Your task to perform on an android device: turn on airplane mode Image 0: 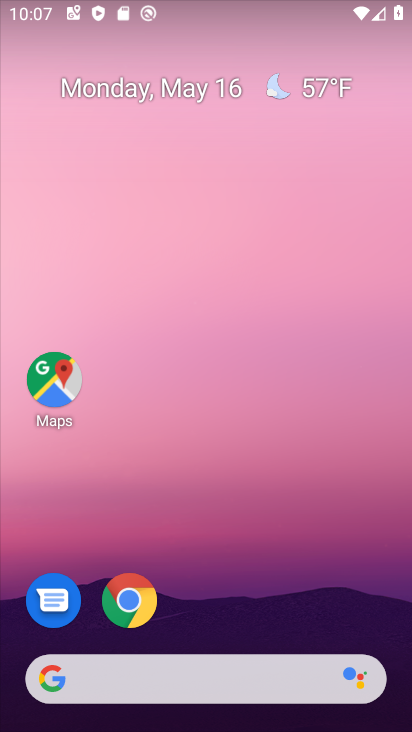
Step 0: drag from (349, 579) to (314, 152)
Your task to perform on an android device: turn on airplane mode Image 1: 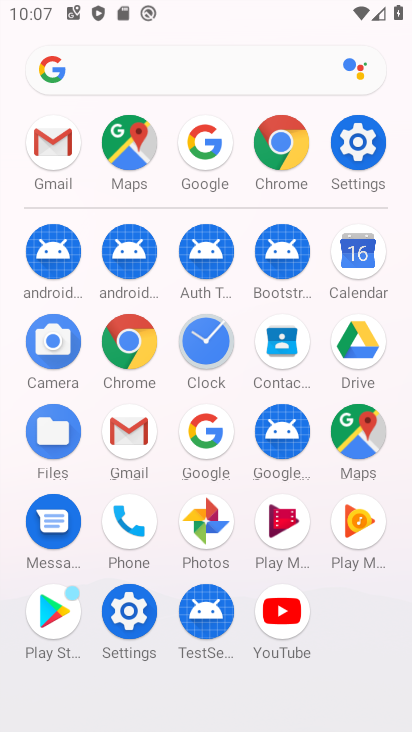
Step 1: click (352, 153)
Your task to perform on an android device: turn on airplane mode Image 2: 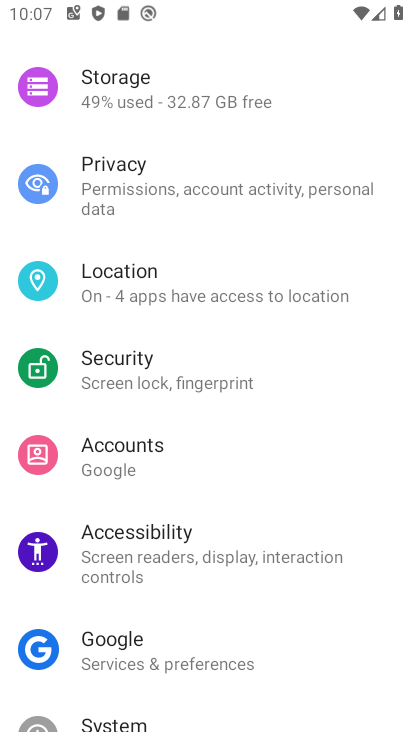
Step 2: drag from (202, 196) to (292, 456)
Your task to perform on an android device: turn on airplane mode Image 3: 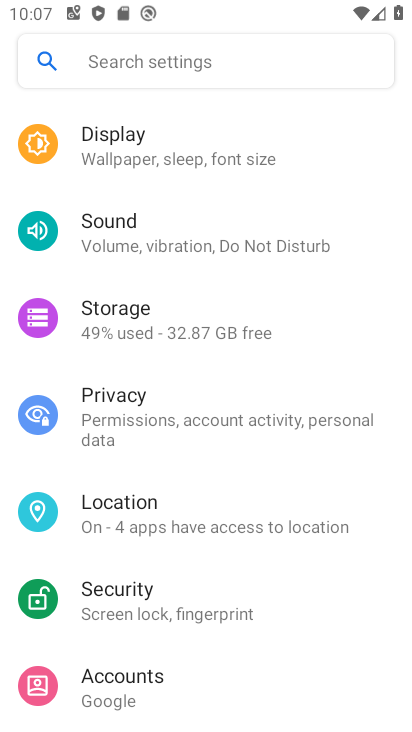
Step 3: drag from (244, 233) to (338, 537)
Your task to perform on an android device: turn on airplane mode Image 4: 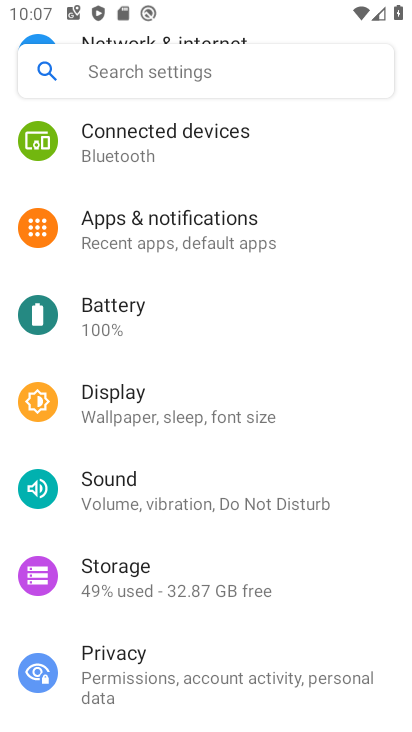
Step 4: drag from (217, 225) to (327, 525)
Your task to perform on an android device: turn on airplane mode Image 5: 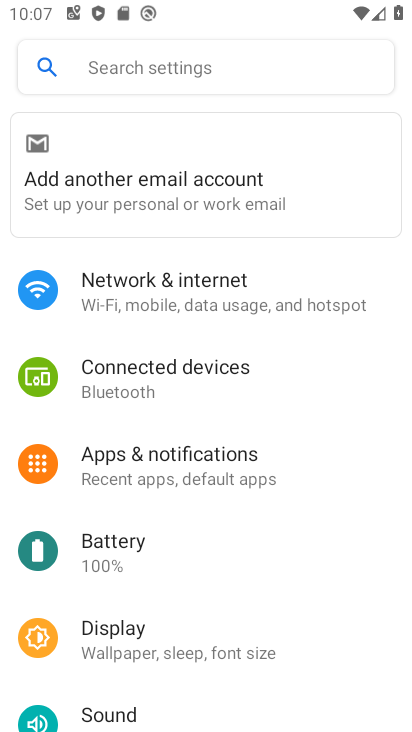
Step 5: click (277, 300)
Your task to perform on an android device: turn on airplane mode Image 6: 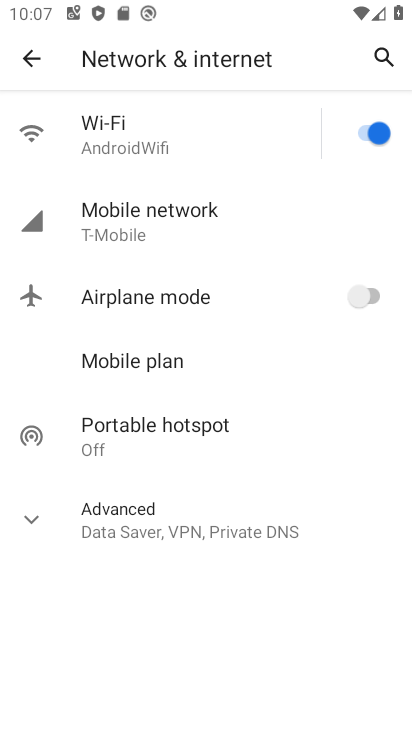
Step 6: click (380, 298)
Your task to perform on an android device: turn on airplane mode Image 7: 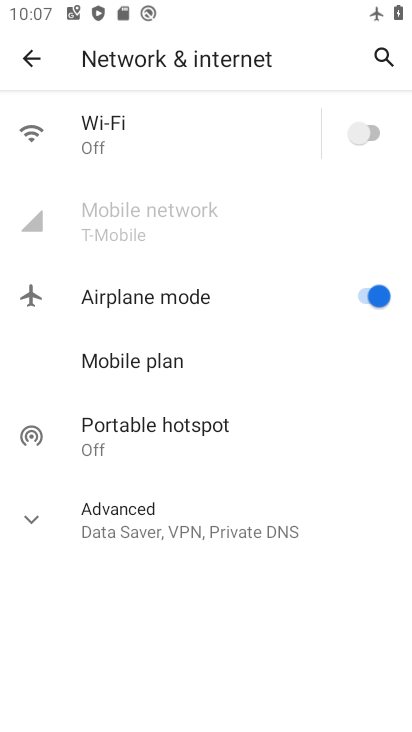
Step 7: task complete